Your task to perform on an android device: Do I have any events tomorrow? Image 0: 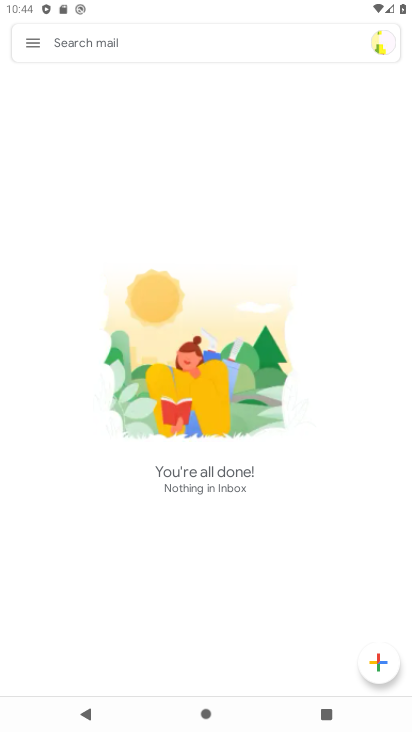
Step 0: press back button
Your task to perform on an android device: Do I have any events tomorrow? Image 1: 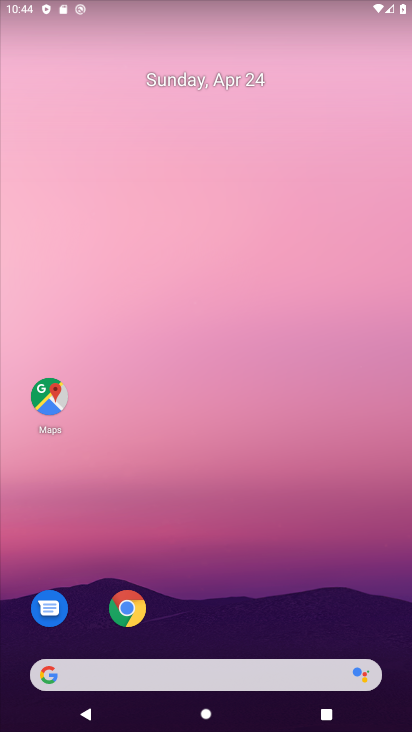
Step 1: drag from (305, 500) to (0, 439)
Your task to perform on an android device: Do I have any events tomorrow? Image 2: 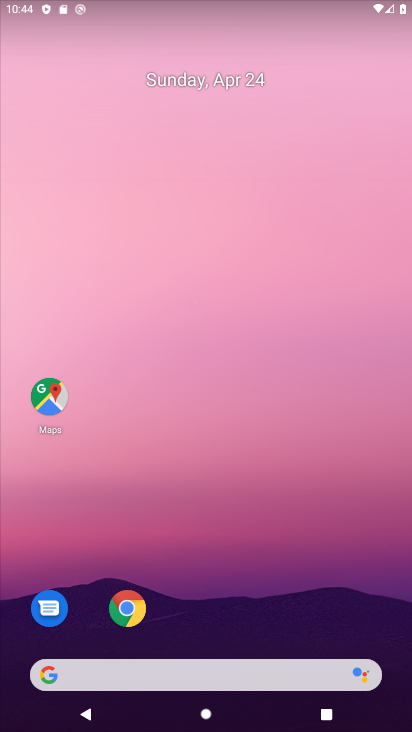
Step 2: drag from (22, 489) to (11, 34)
Your task to perform on an android device: Do I have any events tomorrow? Image 3: 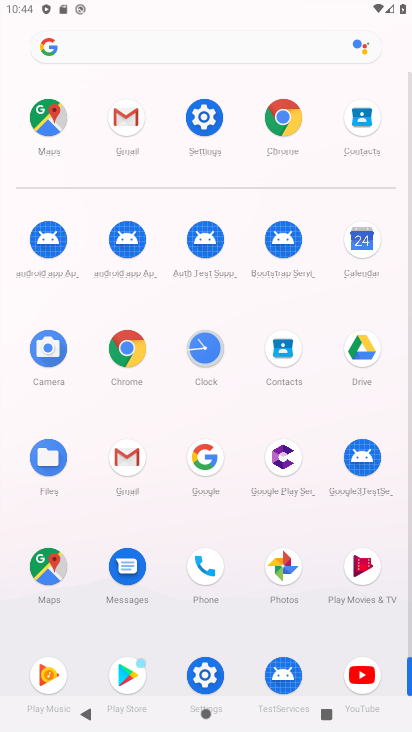
Step 3: drag from (5, 396) to (12, 336)
Your task to perform on an android device: Do I have any events tomorrow? Image 4: 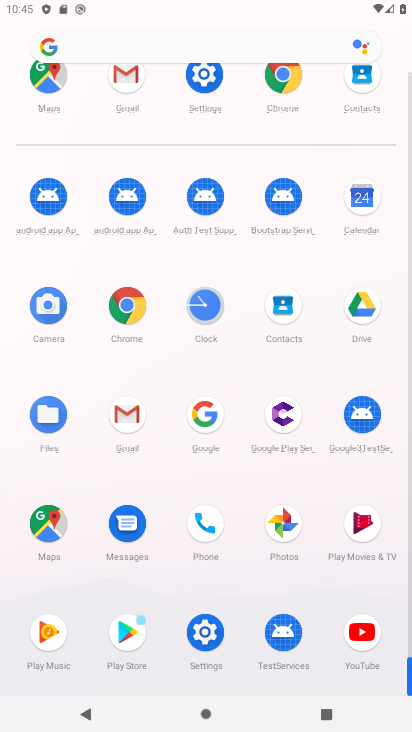
Step 4: click (362, 199)
Your task to perform on an android device: Do I have any events tomorrow? Image 5: 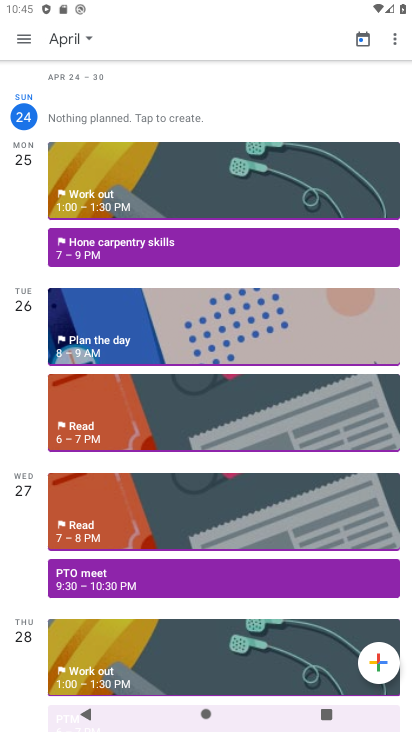
Step 5: click (23, 156)
Your task to perform on an android device: Do I have any events tomorrow? Image 6: 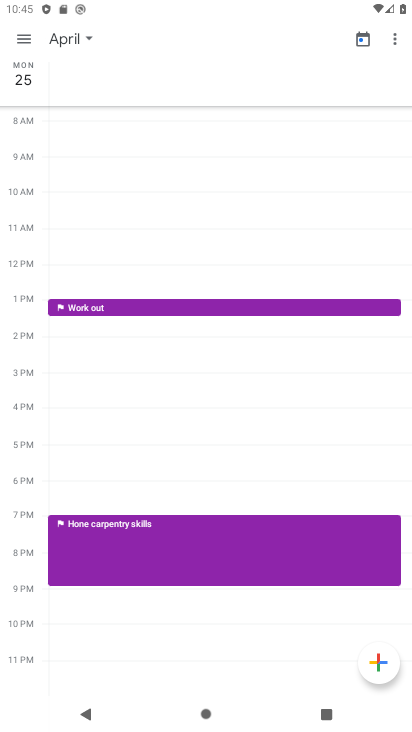
Step 6: task complete